Your task to perform on an android device: change your default location settings in chrome Image 0: 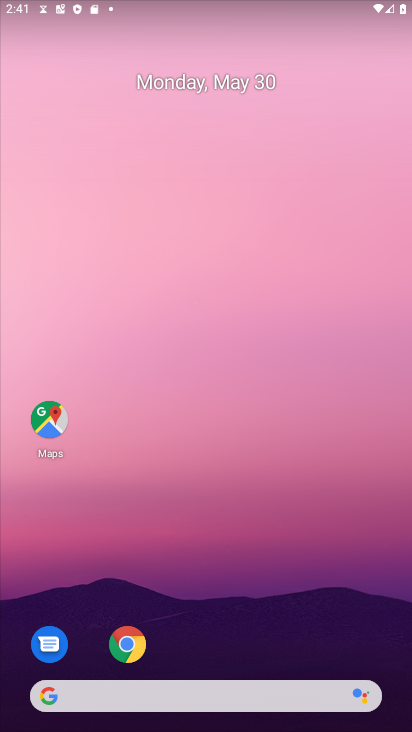
Step 0: click (125, 644)
Your task to perform on an android device: change your default location settings in chrome Image 1: 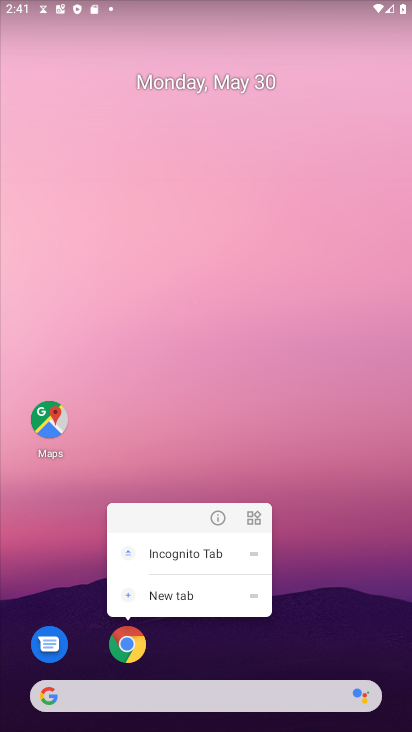
Step 1: click (109, 634)
Your task to perform on an android device: change your default location settings in chrome Image 2: 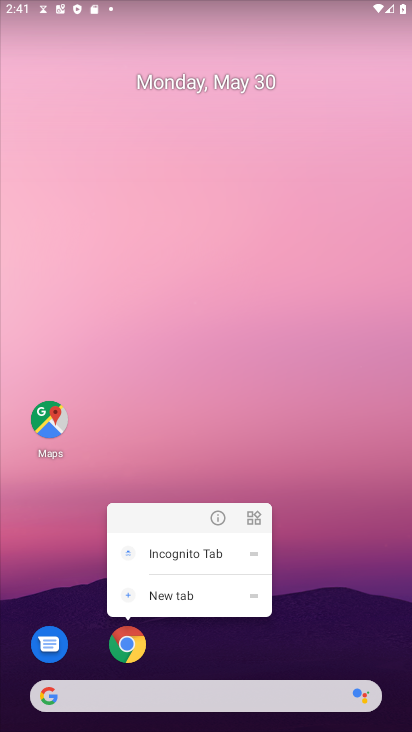
Step 2: click (121, 642)
Your task to perform on an android device: change your default location settings in chrome Image 3: 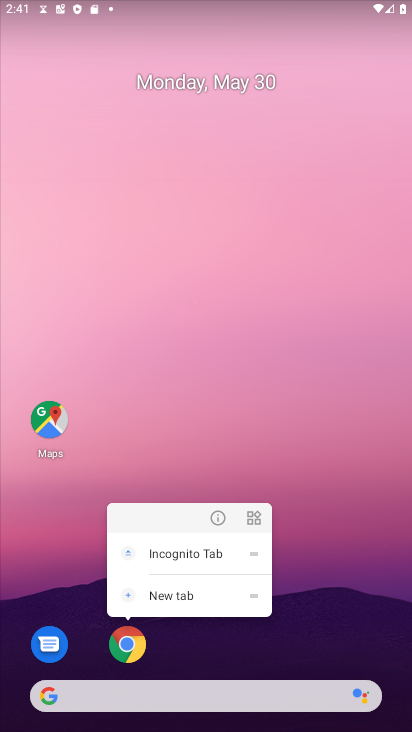
Step 3: click (129, 644)
Your task to perform on an android device: change your default location settings in chrome Image 4: 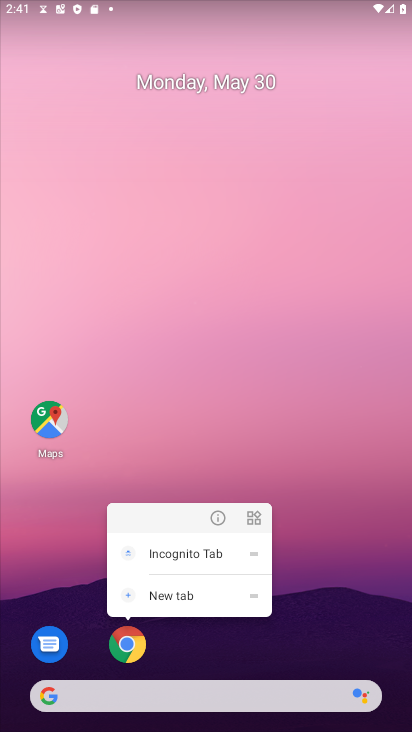
Step 4: click (131, 653)
Your task to perform on an android device: change your default location settings in chrome Image 5: 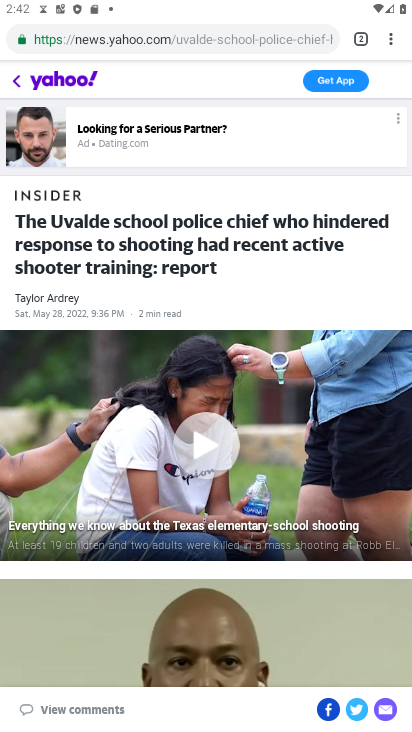
Step 5: drag from (389, 40) to (262, 466)
Your task to perform on an android device: change your default location settings in chrome Image 6: 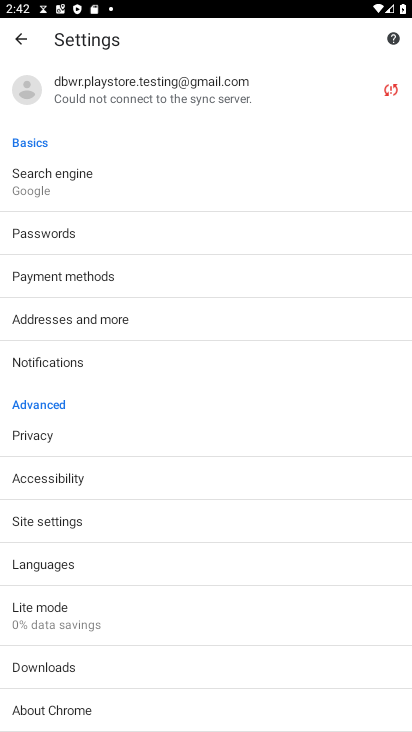
Step 6: click (80, 177)
Your task to perform on an android device: change your default location settings in chrome Image 7: 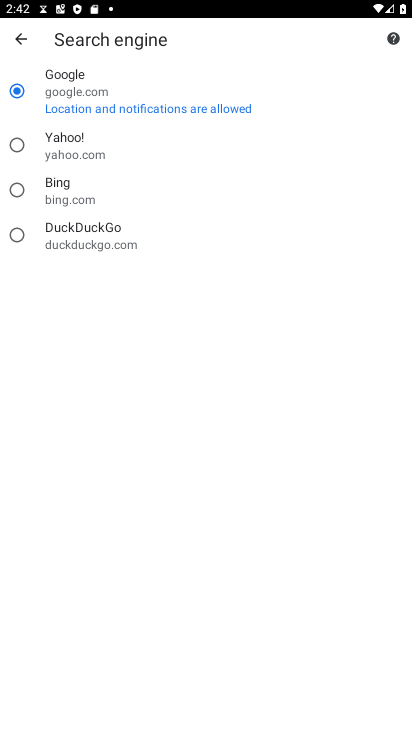
Step 7: click (22, 149)
Your task to perform on an android device: change your default location settings in chrome Image 8: 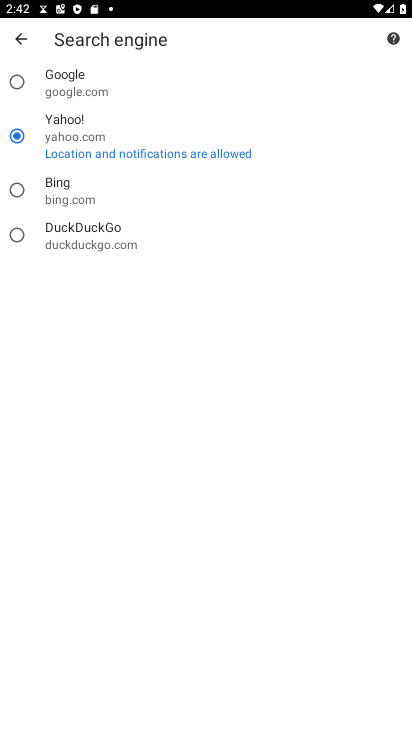
Step 8: task complete